Your task to perform on an android device: Search for pizza restaurants on Maps Image 0: 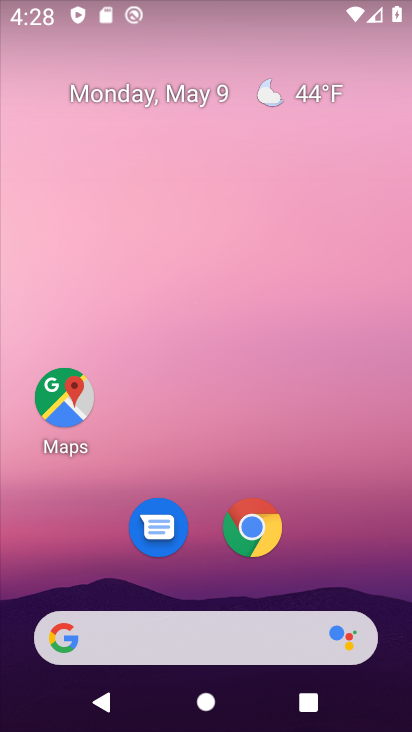
Step 0: click (60, 419)
Your task to perform on an android device: Search for pizza restaurants on Maps Image 1: 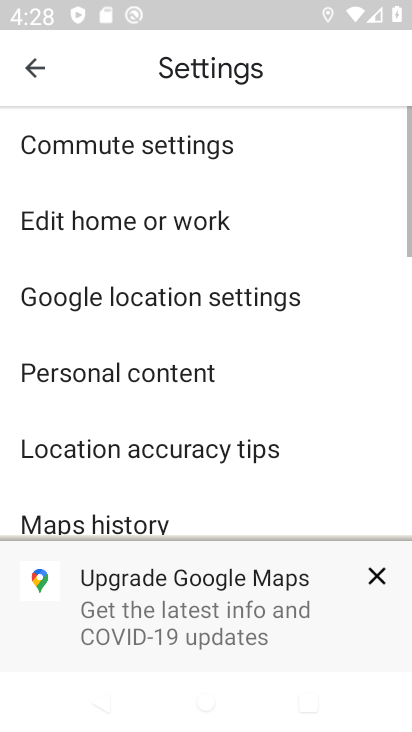
Step 1: click (23, 92)
Your task to perform on an android device: Search for pizza restaurants on Maps Image 2: 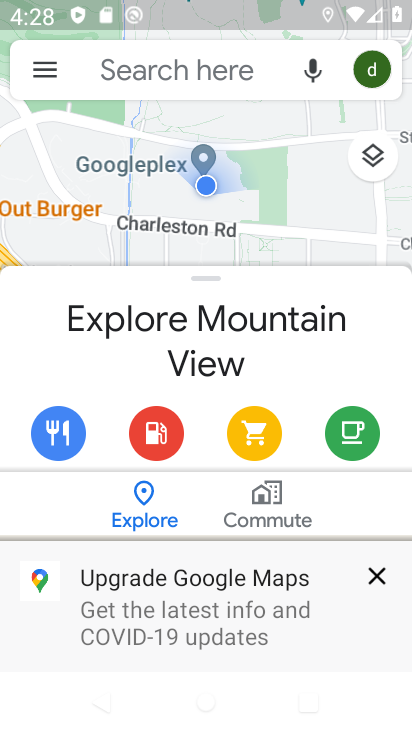
Step 2: click (169, 60)
Your task to perform on an android device: Search for pizza restaurants on Maps Image 3: 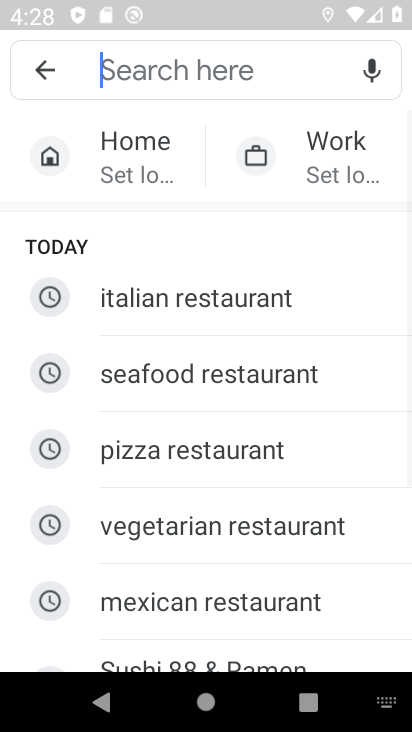
Step 3: click (193, 437)
Your task to perform on an android device: Search for pizza restaurants on Maps Image 4: 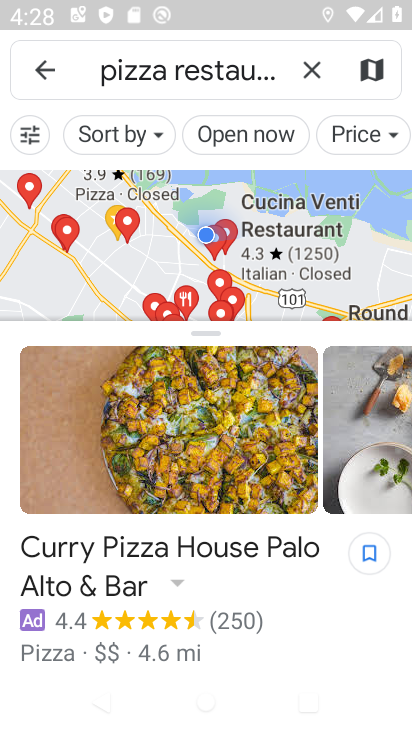
Step 4: task complete